Your task to perform on an android device: Open Wikipedia Image 0: 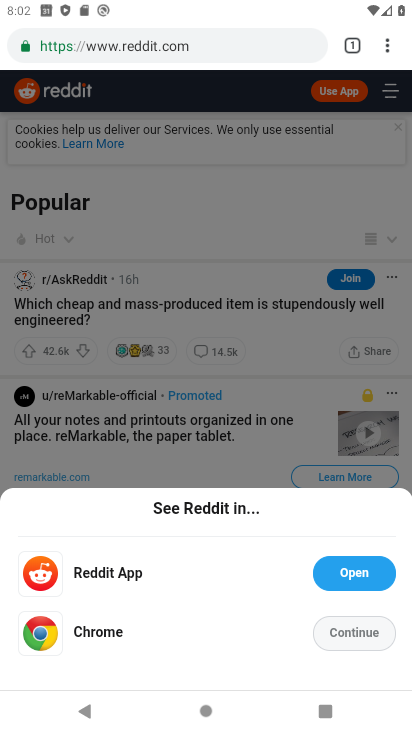
Step 0: click (388, 50)
Your task to perform on an android device: Open Wikipedia Image 1: 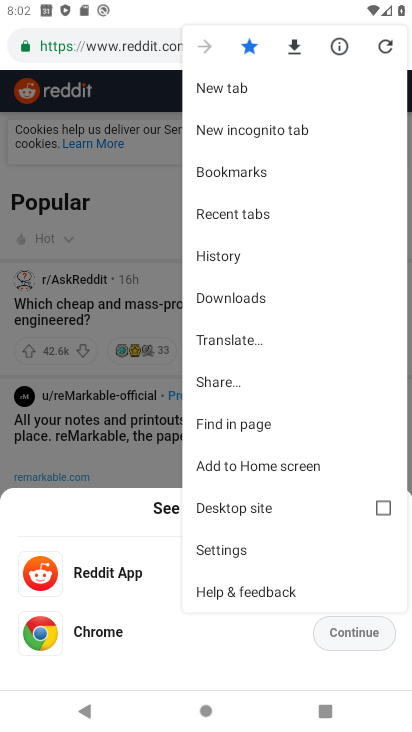
Step 1: click (216, 89)
Your task to perform on an android device: Open Wikipedia Image 2: 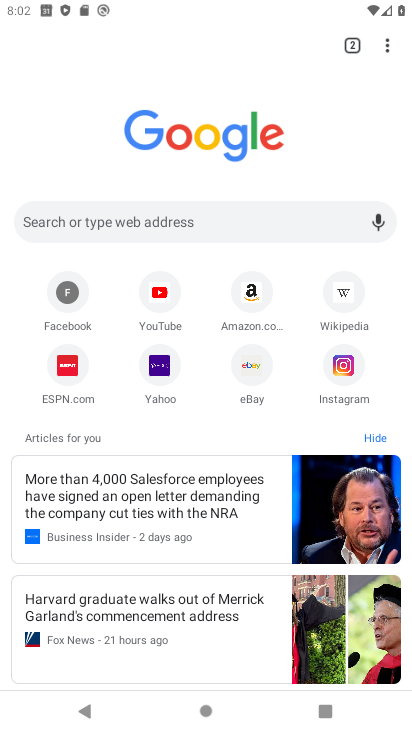
Step 2: click (194, 218)
Your task to perform on an android device: Open Wikipedia Image 3: 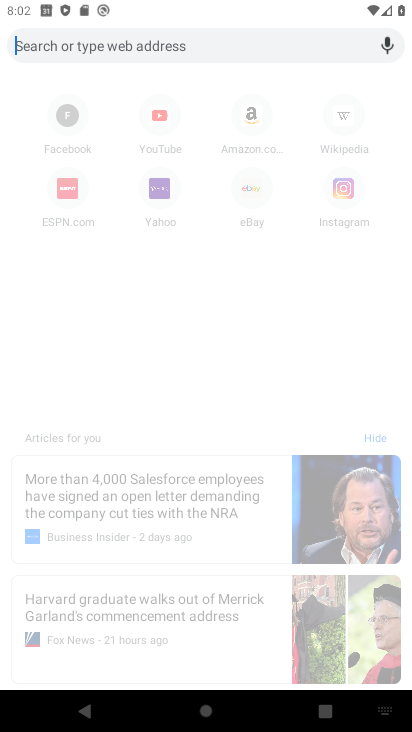
Step 3: type "Wikipedia"
Your task to perform on an android device: Open Wikipedia Image 4: 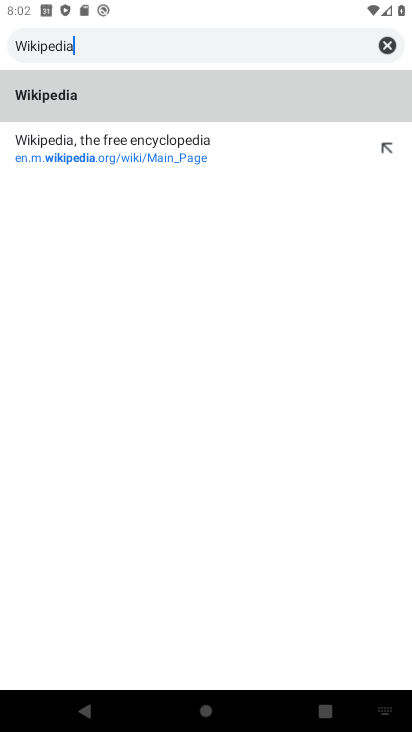
Step 4: click (99, 144)
Your task to perform on an android device: Open Wikipedia Image 5: 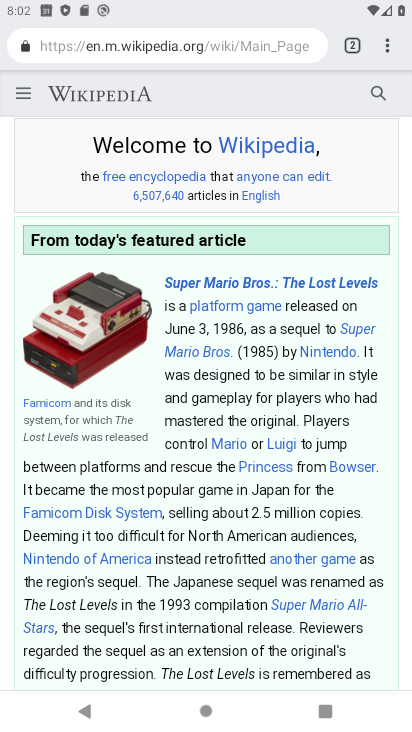
Step 5: task complete